Your task to perform on an android device: Go to CNN.com Image 0: 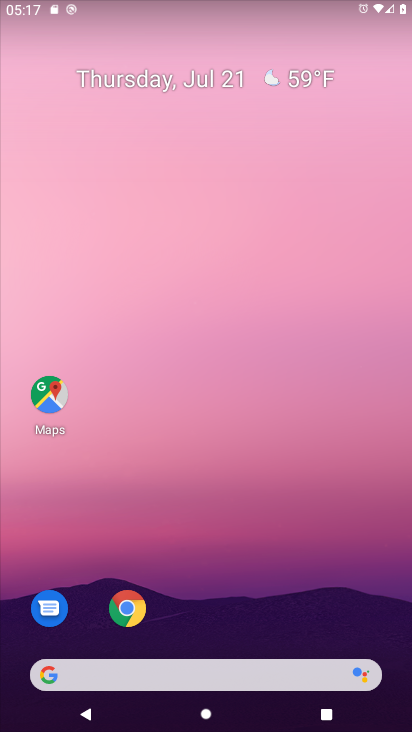
Step 0: drag from (158, 682) to (165, 2)
Your task to perform on an android device: Go to CNN.com Image 1: 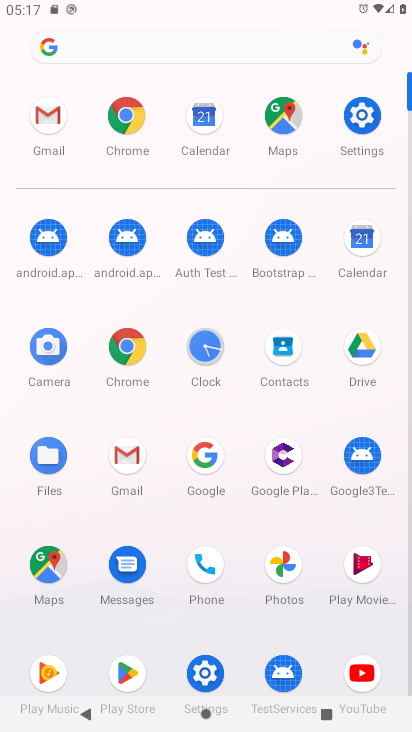
Step 1: drag from (224, 662) to (385, 681)
Your task to perform on an android device: Go to CNN.com Image 2: 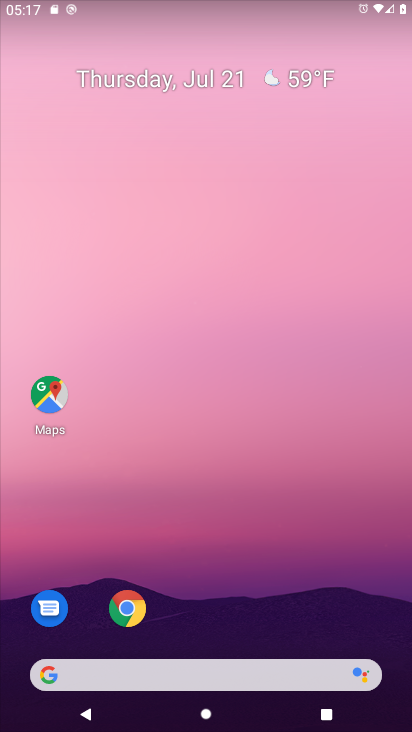
Step 2: drag from (239, 669) to (188, 52)
Your task to perform on an android device: Go to CNN.com Image 3: 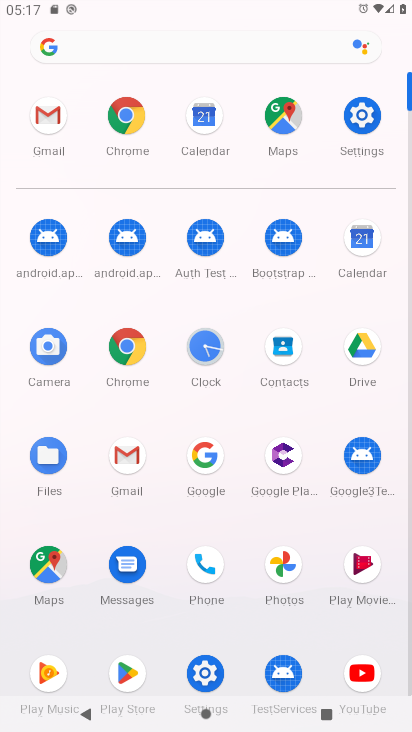
Step 3: click (127, 334)
Your task to perform on an android device: Go to CNN.com Image 4: 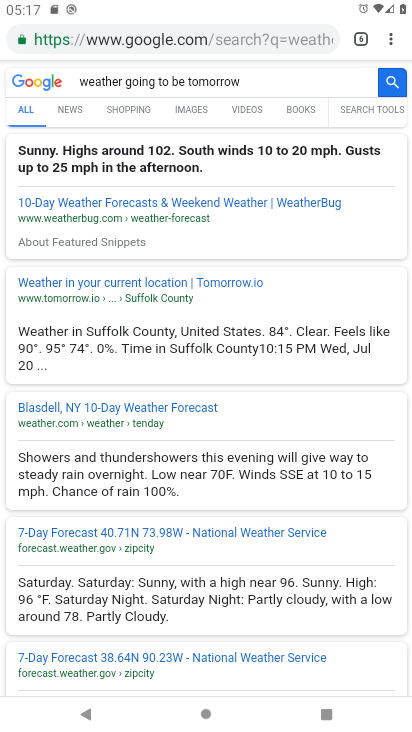
Step 4: click (259, 43)
Your task to perform on an android device: Go to CNN.com Image 5: 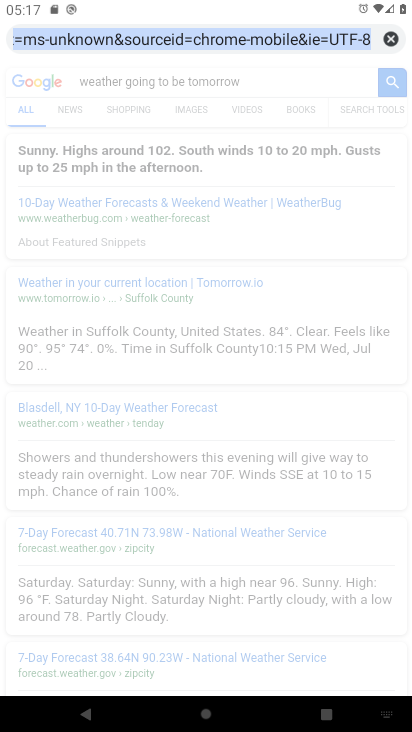
Step 5: type "cnn.com"
Your task to perform on an android device: Go to CNN.com Image 6: 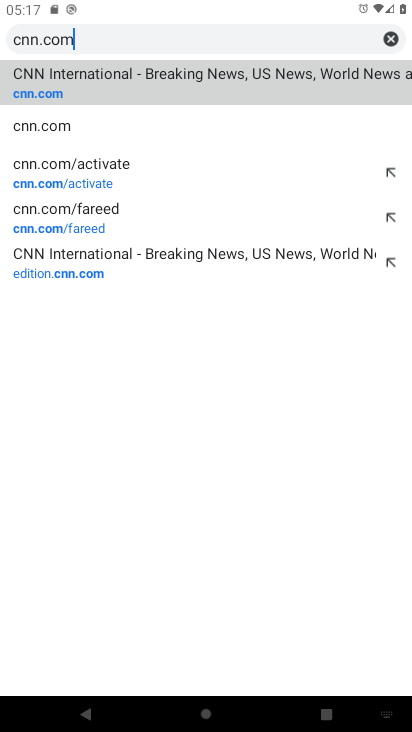
Step 6: click (42, 91)
Your task to perform on an android device: Go to CNN.com Image 7: 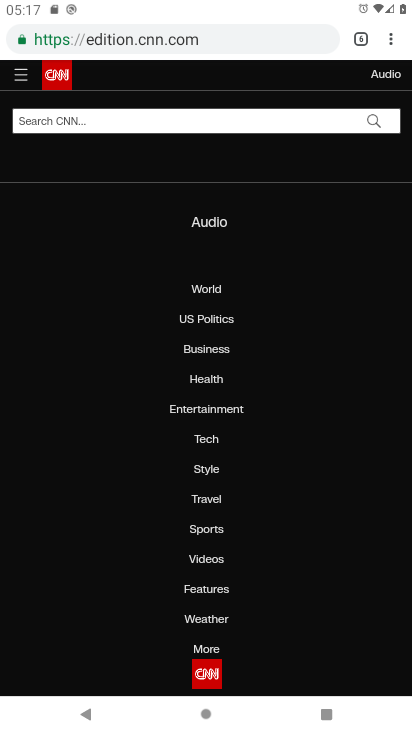
Step 7: task complete